Your task to perform on an android device: Open Google Chrome and open the bookmarks view Image 0: 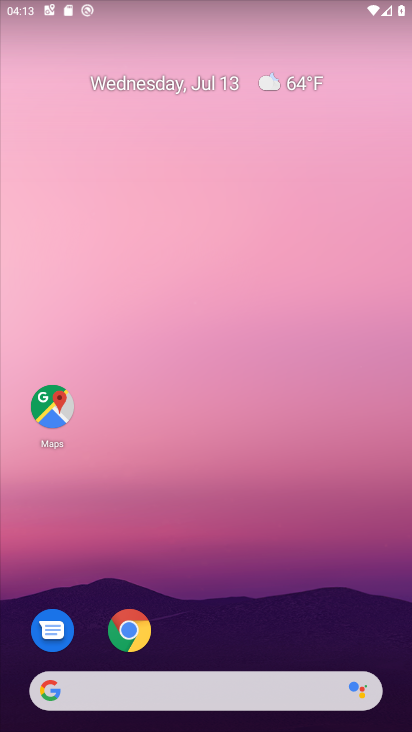
Step 0: click (124, 629)
Your task to perform on an android device: Open Google Chrome and open the bookmarks view Image 1: 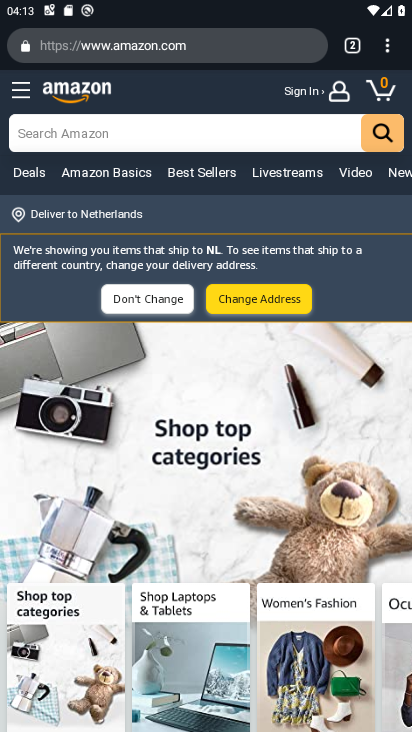
Step 1: click (395, 53)
Your task to perform on an android device: Open Google Chrome and open the bookmarks view Image 2: 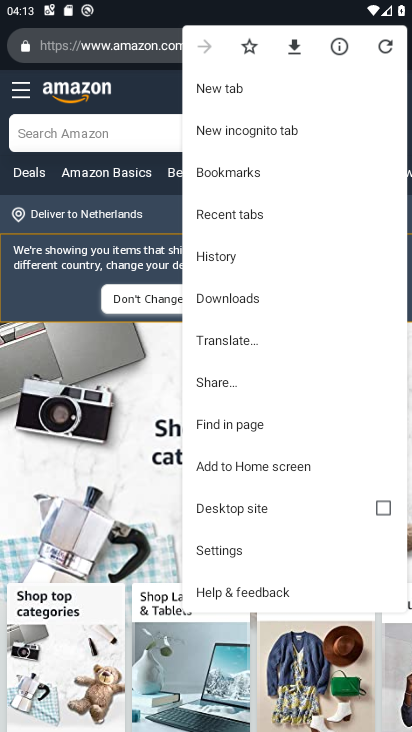
Step 2: click (233, 182)
Your task to perform on an android device: Open Google Chrome and open the bookmarks view Image 3: 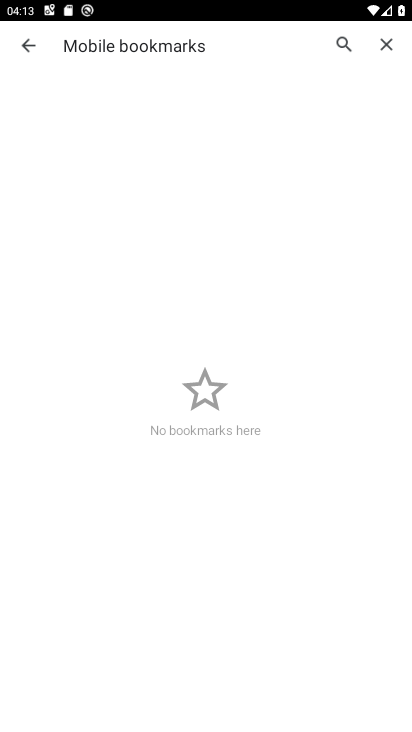
Step 3: task complete